Your task to perform on an android device: set the timer Image 0: 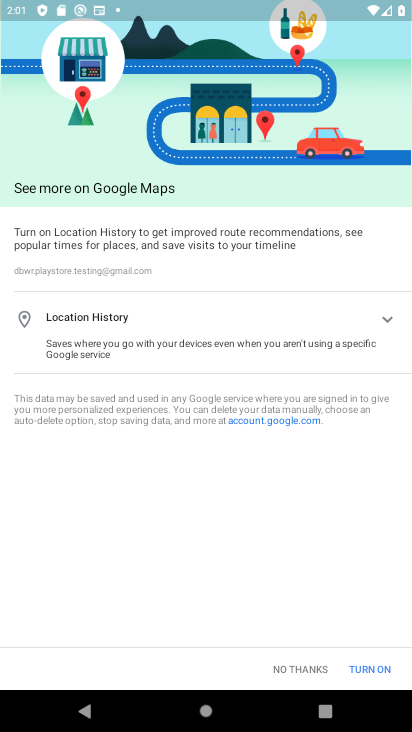
Step 0: press home button
Your task to perform on an android device: set the timer Image 1: 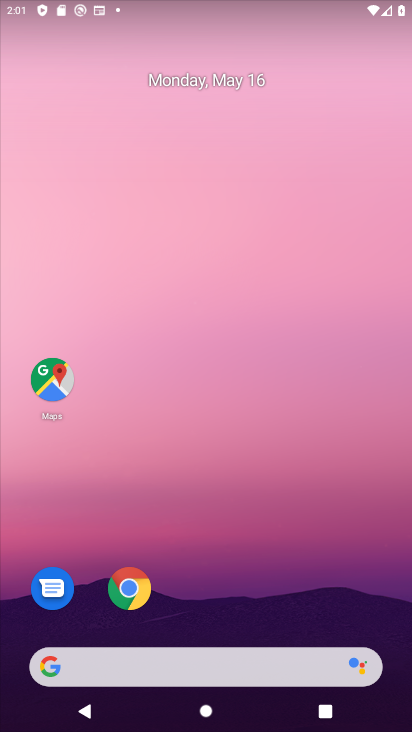
Step 1: drag from (220, 724) to (225, 204)
Your task to perform on an android device: set the timer Image 2: 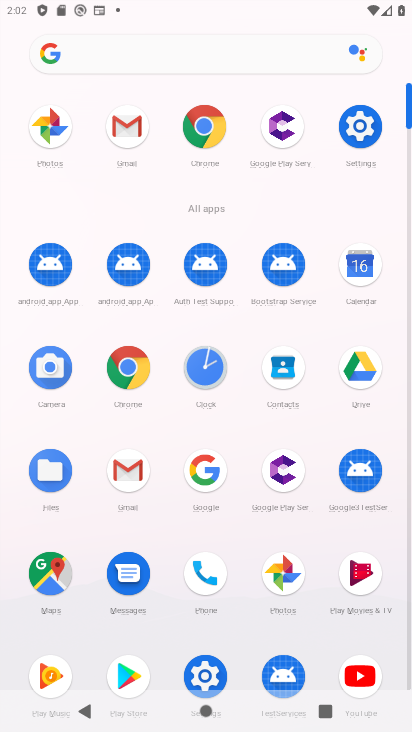
Step 2: click (202, 368)
Your task to perform on an android device: set the timer Image 3: 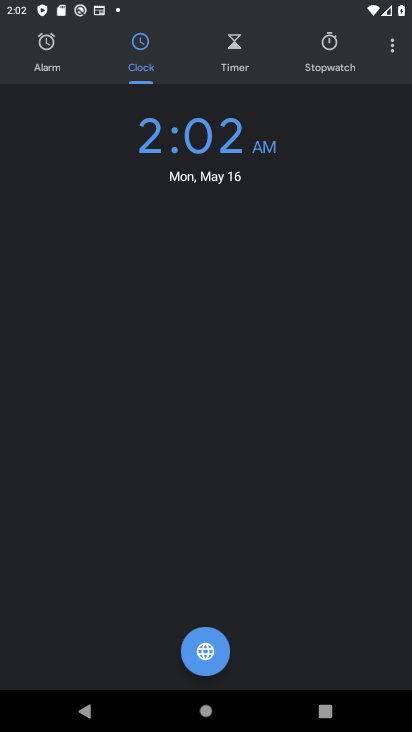
Step 3: click (229, 47)
Your task to perform on an android device: set the timer Image 4: 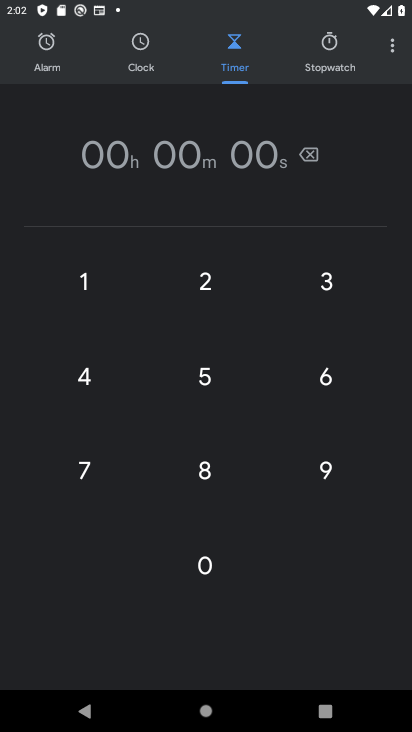
Step 4: click (207, 283)
Your task to perform on an android device: set the timer Image 5: 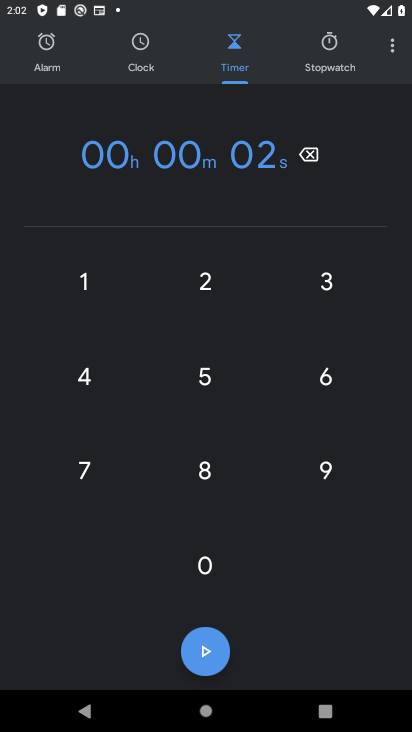
Step 5: click (87, 381)
Your task to perform on an android device: set the timer Image 6: 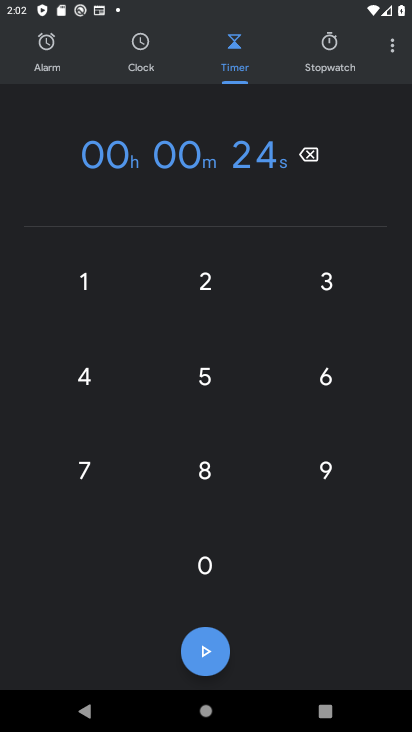
Step 6: click (83, 459)
Your task to perform on an android device: set the timer Image 7: 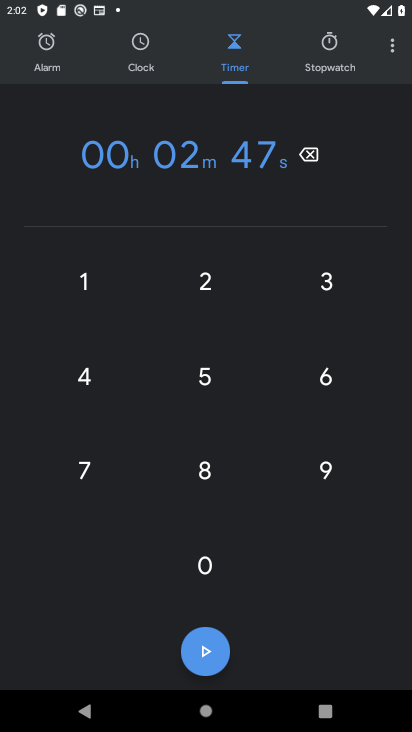
Step 7: click (207, 559)
Your task to perform on an android device: set the timer Image 8: 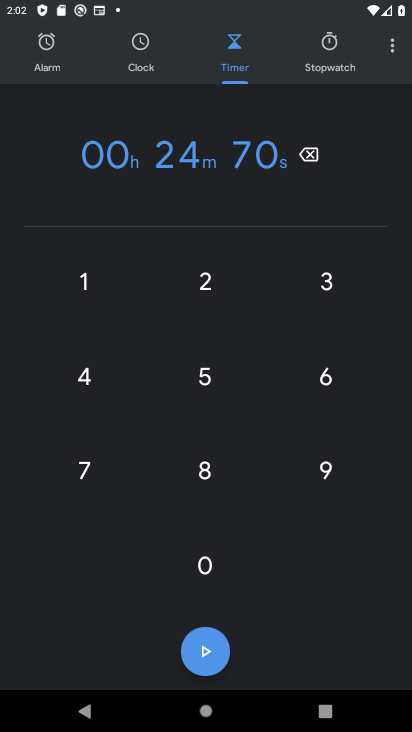
Step 8: click (207, 647)
Your task to perform on an android device: set the timer Image 9: 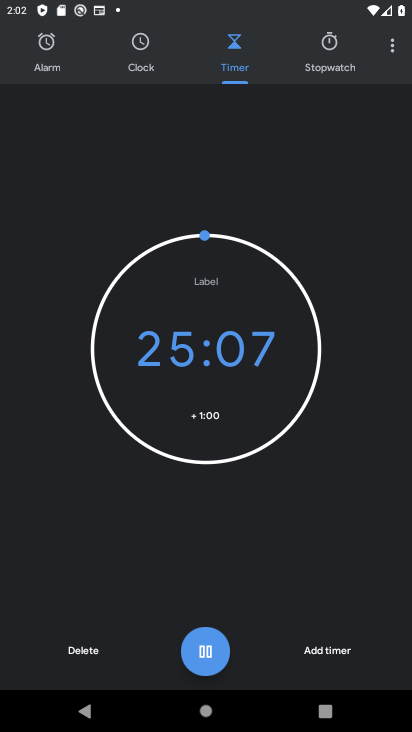
Step 9: task complete